Your task to perform on an android device: open wifi settings Image 0: 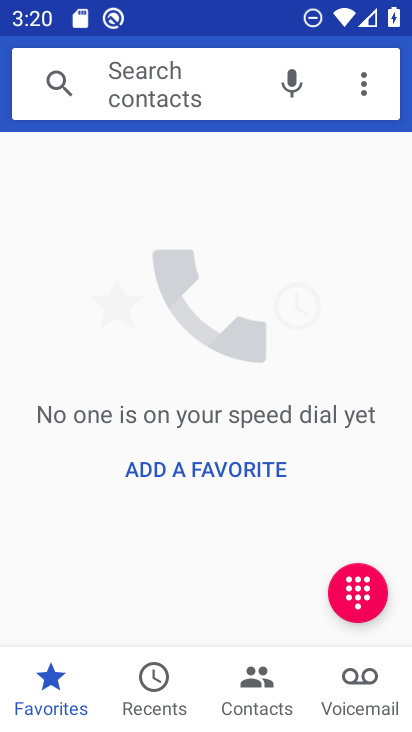
Step 0: press home button
Your task to perform on an android device: open wifi settings Image 1: 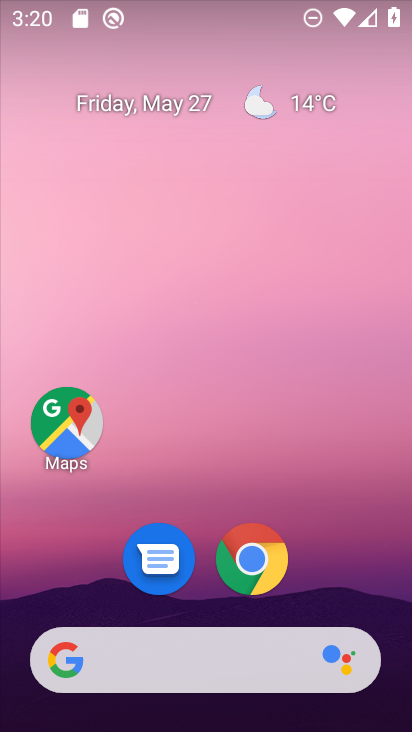
Step 1: drag from (302, 609) to (252, 64)
Your task to perform on an android device: open wifi settings Image 2: 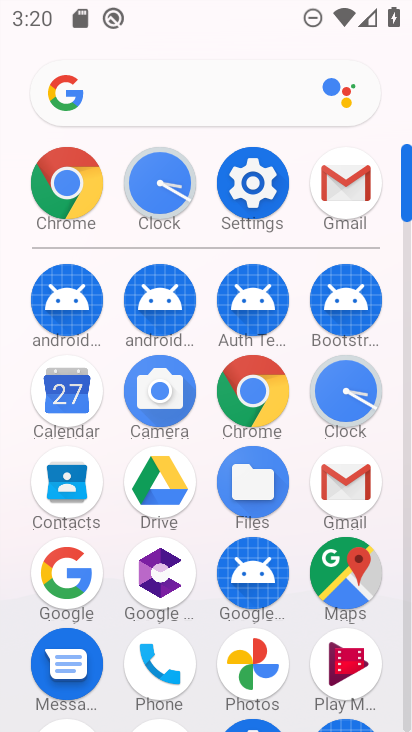
Step 2: click (262, 190)
Your task to perform on an android device: open wifi settings Image 3: 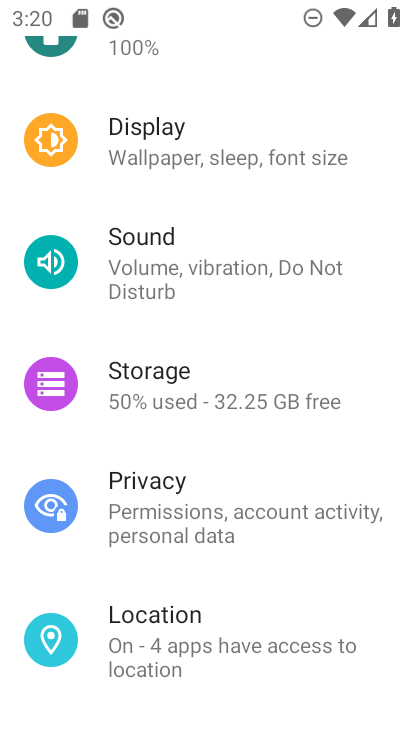
Step 3: drag from (266, 195) to (212, 550)
Your task to perform on an android device: open wifi settings Image 4: 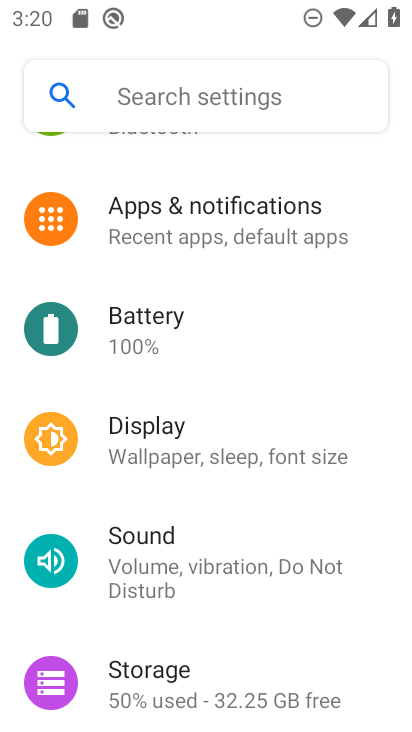
Step 4: drag from (221, 227) to (188, 624)
Your task to perform on an android device: open wifi settings Image 5: 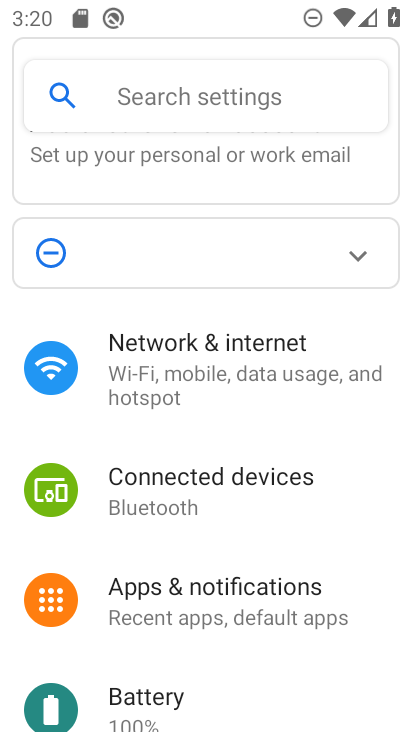
Step 5: click (199, 366)
Your task to perform on an android device: open wifi settings Image 6: 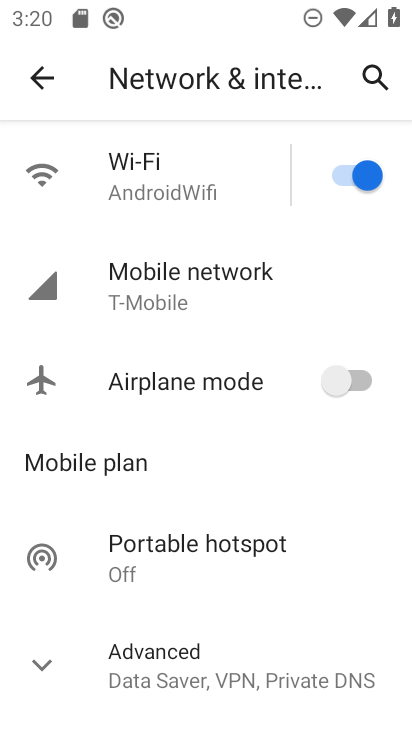
Step 6: click (52, 180)
Your task to perform on an android device: open wifi settings Image 7: 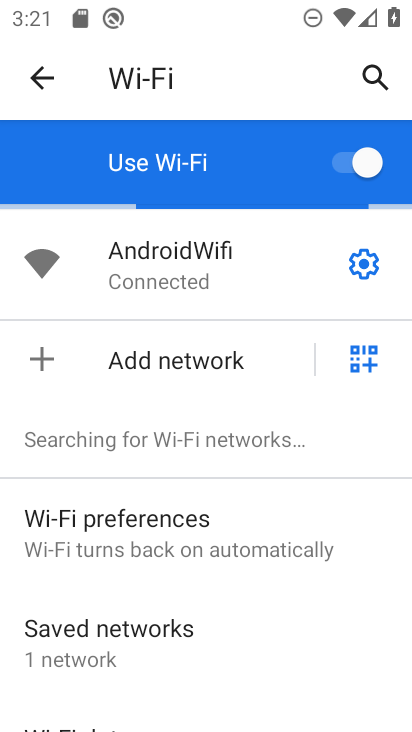
Step 7: task complete